Your task to perform on an android device: change notifications settings Image 0: 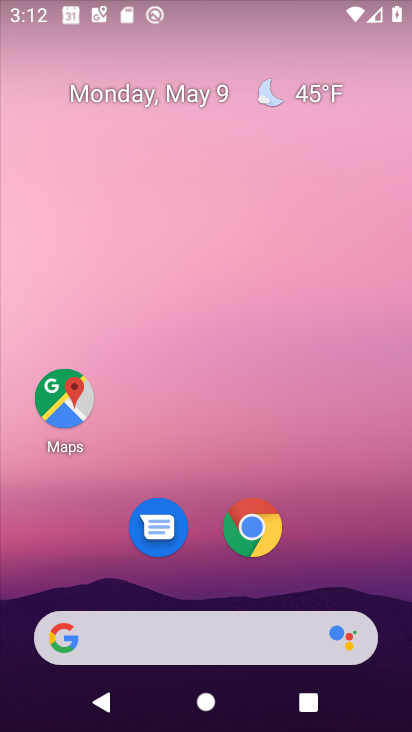
Step 0: drag from (238, 571) to (264, 70)
Your task to perform on an android device: change notifications settings Image 1: 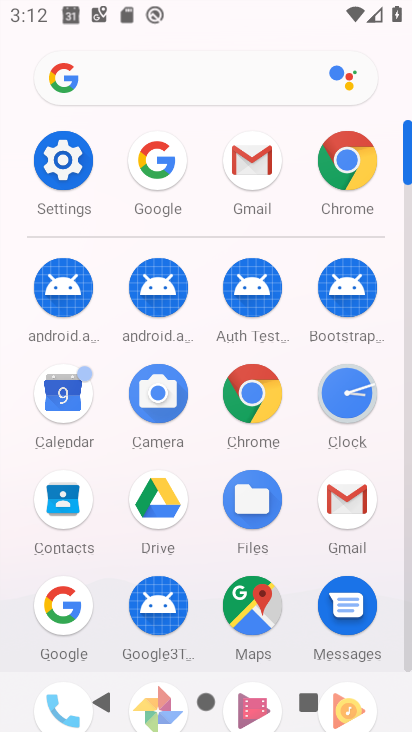
Step 1: click (74, 155)
Your task to perform on an android device: change notifications settings Image 2: 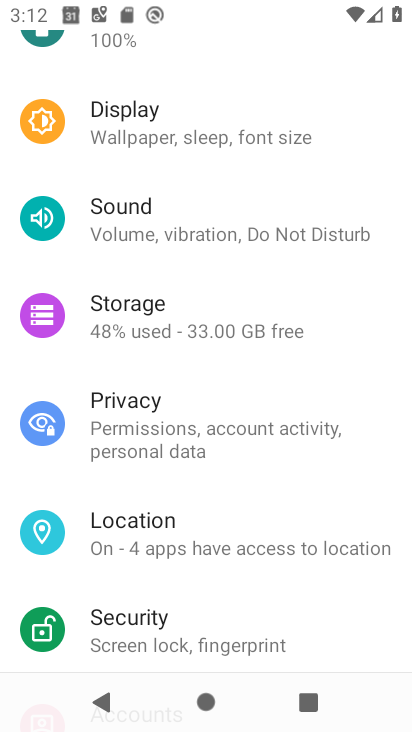
Step 2: drag from (259, 233) to (263, 454)
Your task to perform on an android device: change notifications settings Image 3: 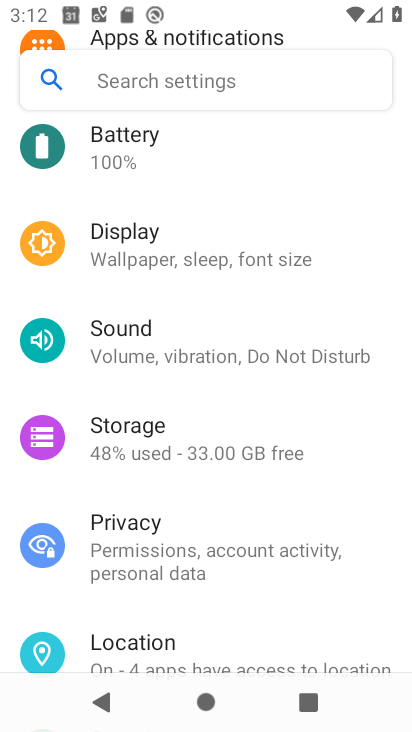
Step 3: drag from (220, 237) to (220, 593)
Your task to perform on an android device: change notifications settings Image 4: 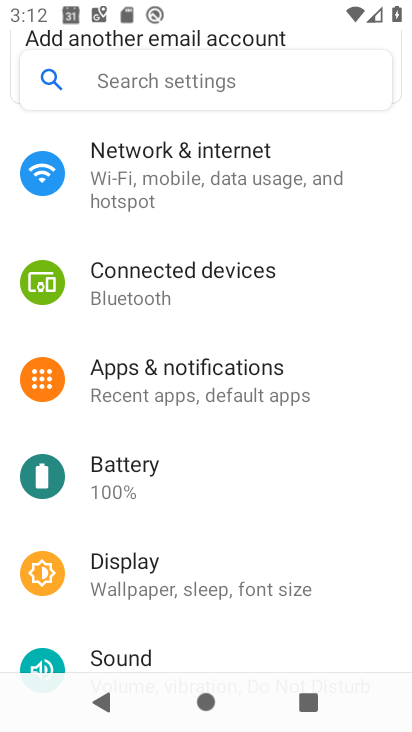
Step 4: click (261, 375)
Your task to perform on an android device: change notifications settings Image 5: 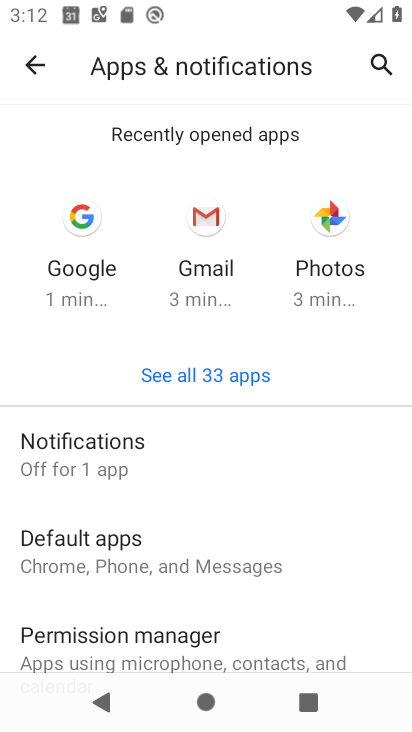
Step 5: click (178, 457)
Your task to perform on an android device: change notifications settings Image 6: 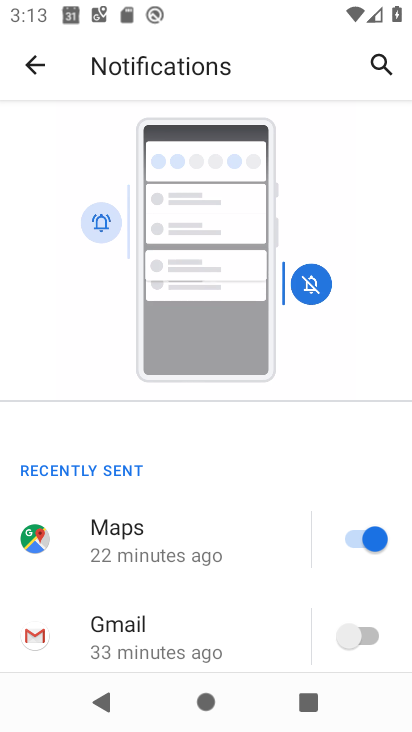
Step 6: drag from (225, 575) to (309, 201)
Your task to perform on an android device: change notifications settings Image 7: 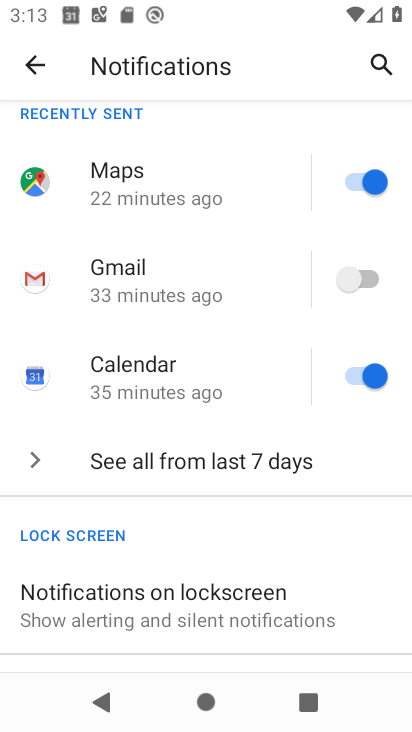
Step 7: drag from (198, 563) to (235, 340)
Your task to perform on an android device: change notifications settings Image 8: 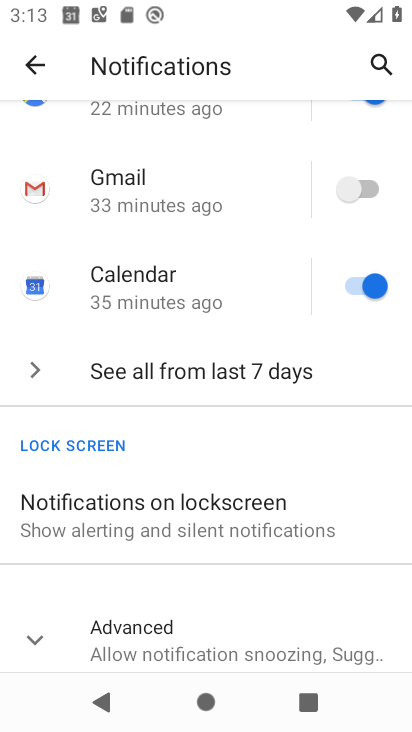
Step 8: click (365, 195)
Your task to perform on an android device: change notifications settings Image 9: 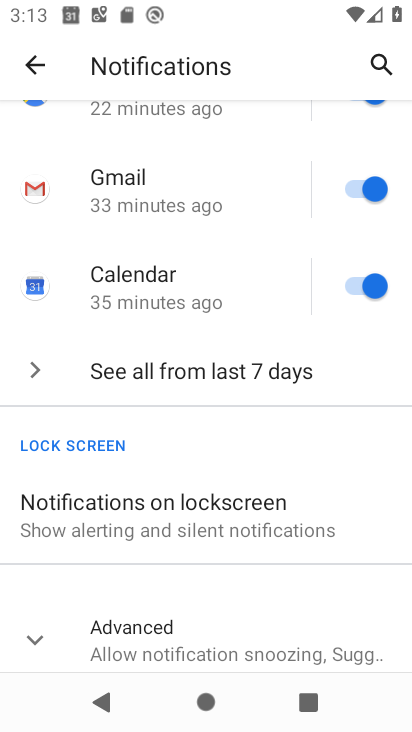
Step 9: task complete